Your task to perform on an android device: open a bookmark in the chrome app Image 0: 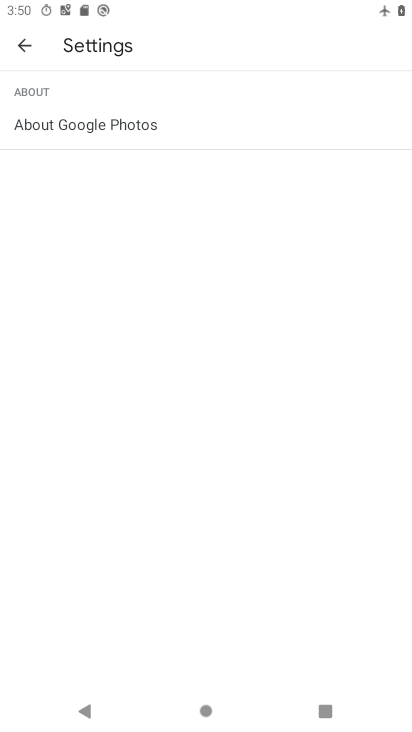
Step 0: press home button
Your task to perform on an android device: open a bookmark in the chrome app Image 1: 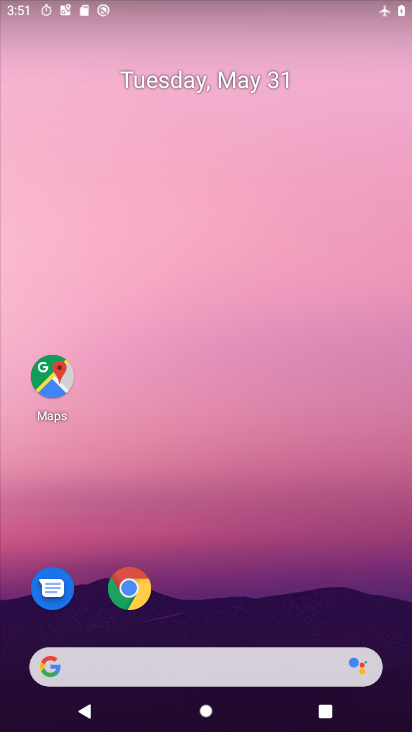
Step 1: drag from (240, 661) to (248, 345)
Your task to perform on an android device: open a bookmark in the chrome app Image 2: 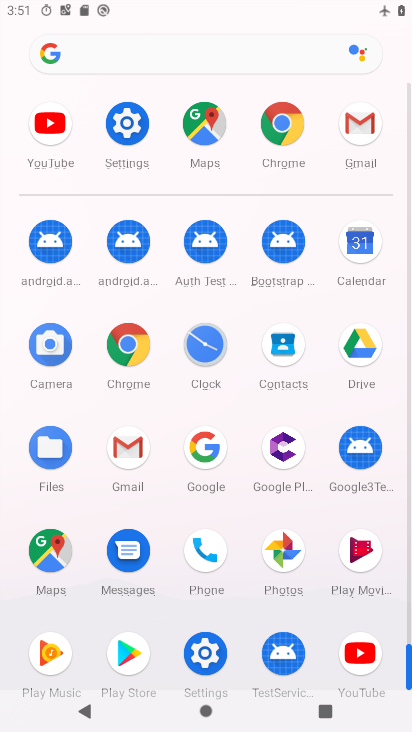
Step 2: click (288, 155)
Your task to perform on an android device: open a bookmark in the chrome app Image 3: 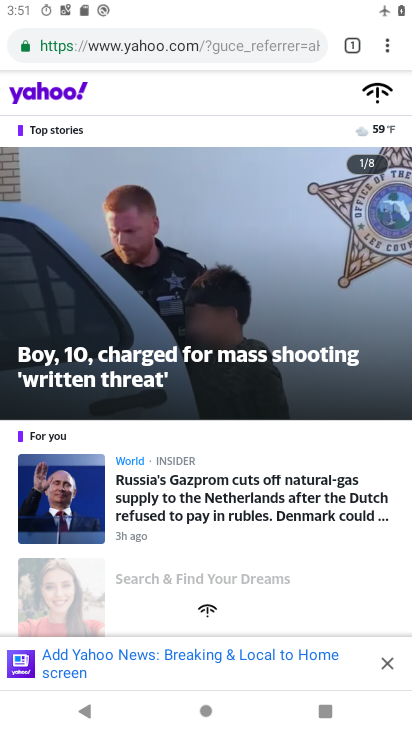
Step 3: click (394, 59)
Your task to perform on an android device: open a bookmark in the chrome app Image 4: 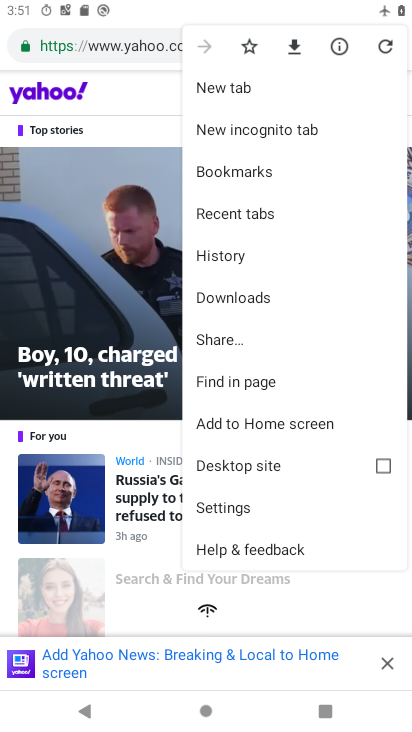
Step 4: click (258, 179)
Your task to perform on an android device: open a bookmark in the chrome app Image 5: 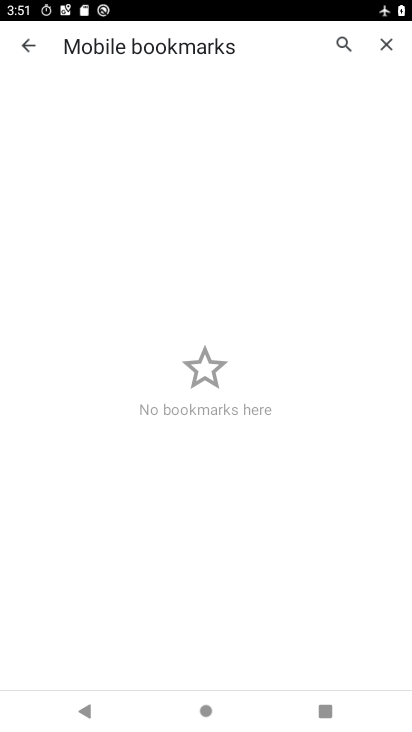
Step 5: task complete